Your task to perform on an android device: Open accessibility settings Image 0: 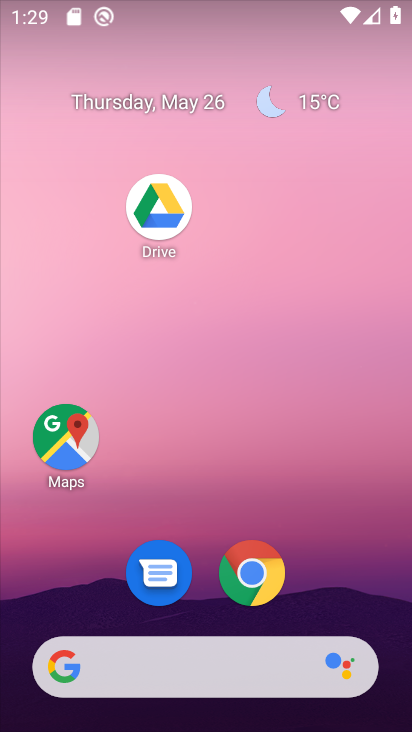
Step 0: drag from (358, 612) to (319, 78)
Your task to perform on an android device: Open accessibility settings Image 1: 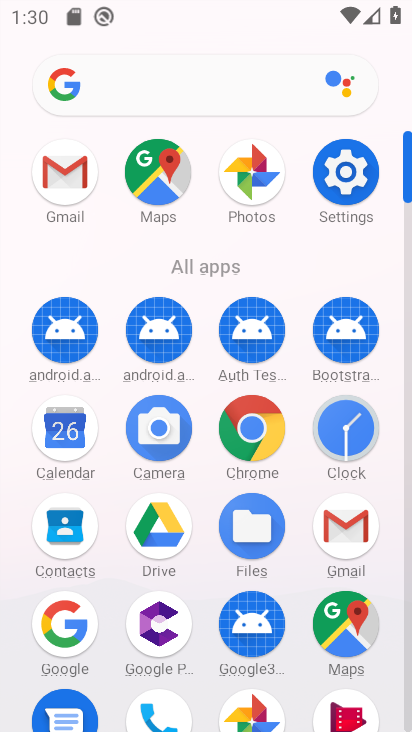
Step 1: click (339, 183)
Your task to perform on an android device: Open accessibility settings Image 2: 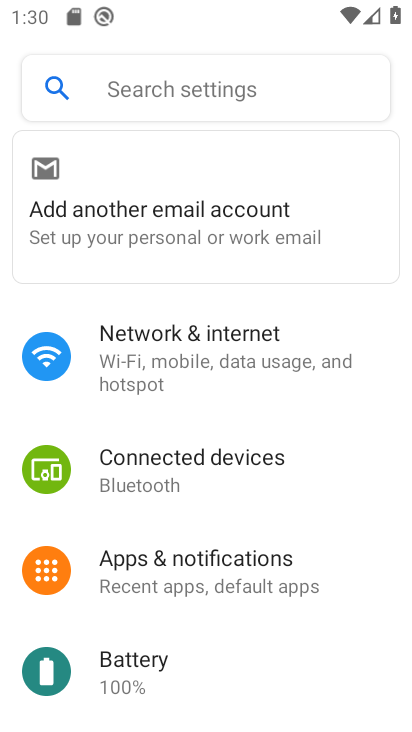
Step 2: drag from (237, 648) to (191, 195)
Your task to perform on an android device: Open accessibility settings Image 3: 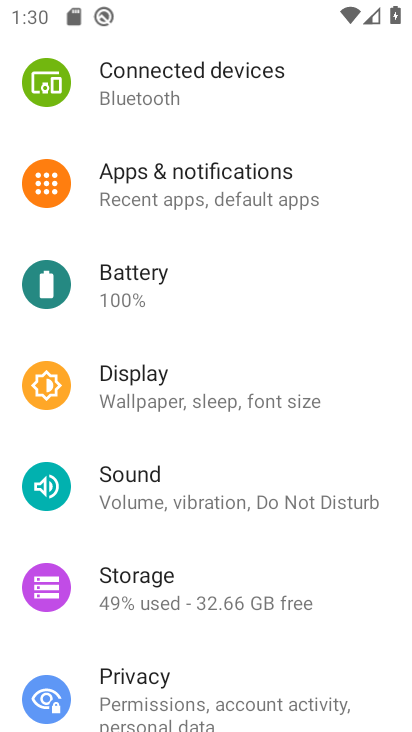
Step 3: drag from (192, 670) to (182, 254)
Your task to perform on an android device: Open accessibility settings Image 4: 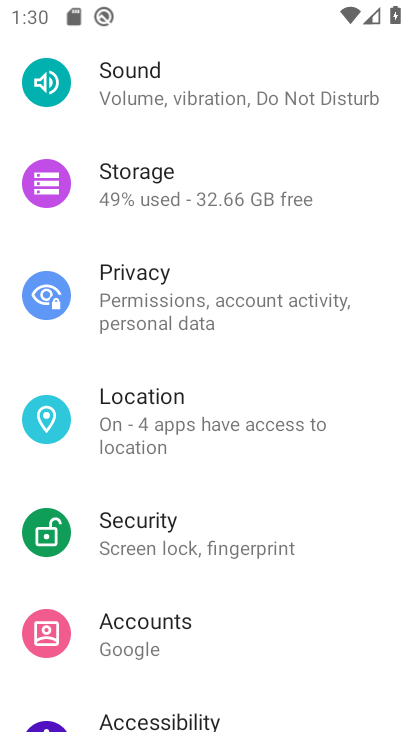
Step 4: drag from (164, 711) to (150, 437)
Your task to perform on an android device: Open accessibility settings Image 5: 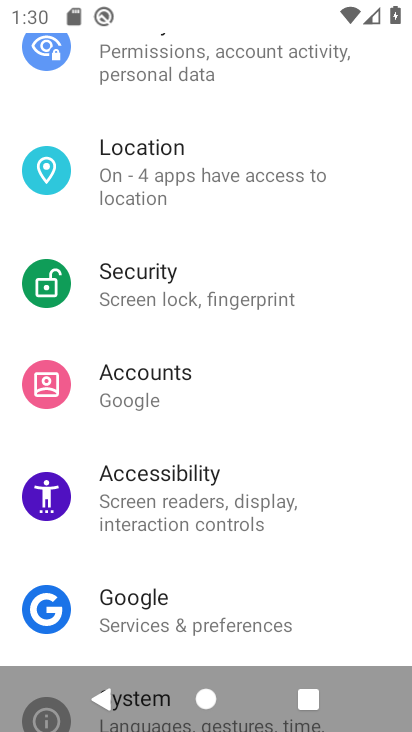
Step 5: click (155, 489)
Your task to perform on an android device: Open accessibility settings Image 6: 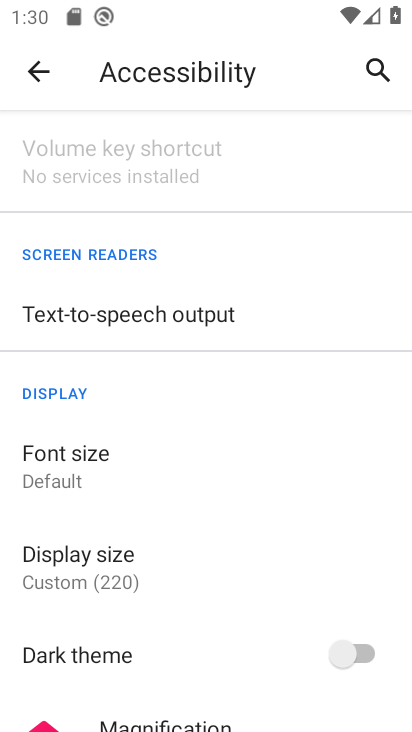
Step 6: task complete